Your task to perform on an android device: What is the recent news? Image 0: 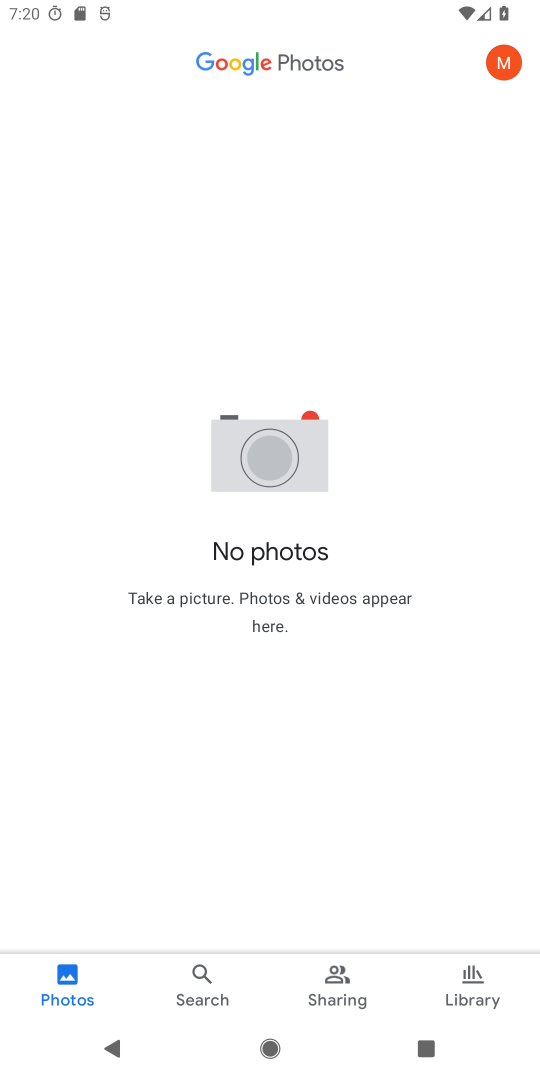
Step 0: press back button
Your task to perform on an android device: What is the recent news? Image 1: 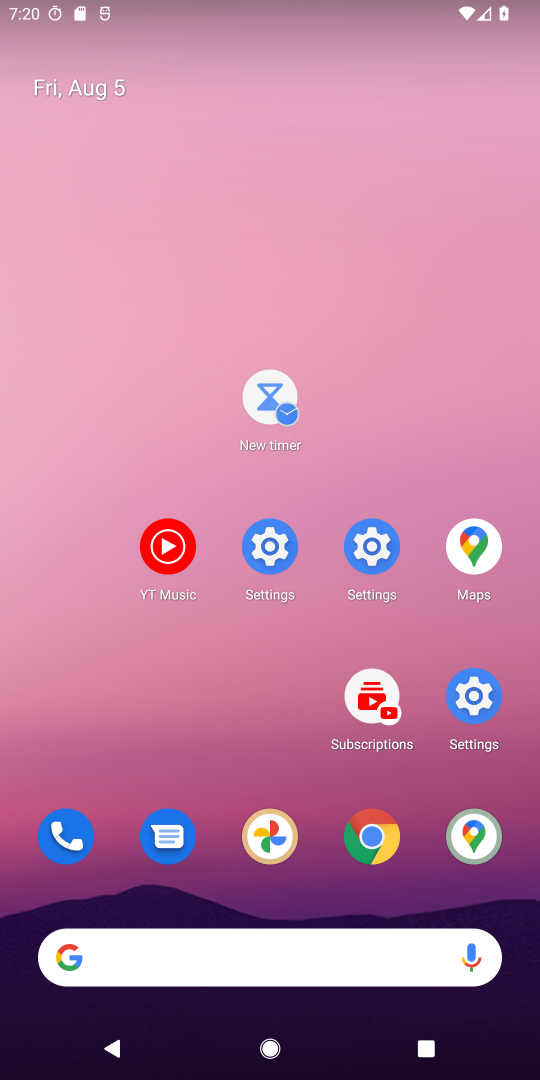
Step 1: drag from (348, 860) to (297, 224)
Your task to perform on an android device: What is the recent news? Image 2: 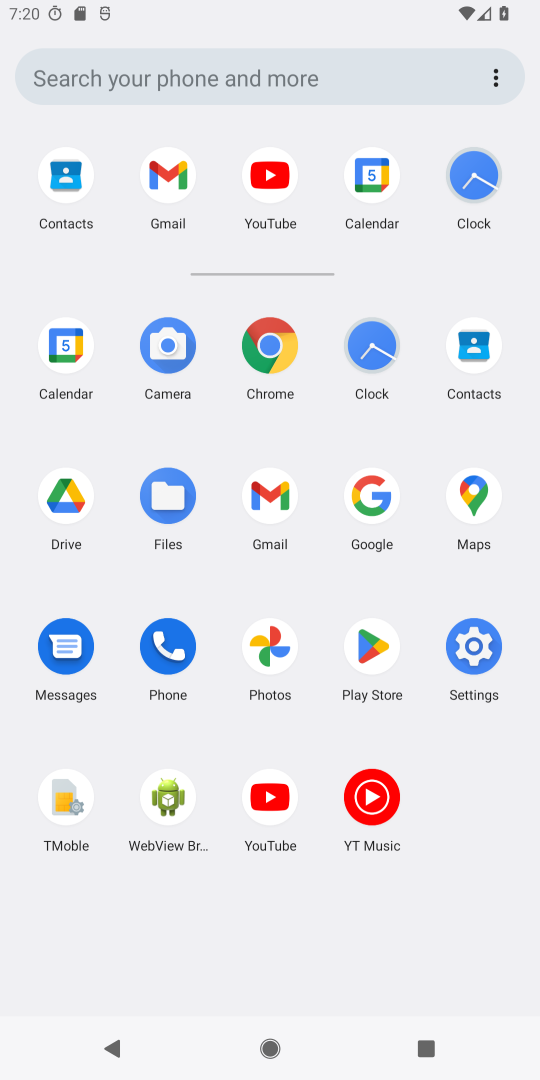
Step 2: drag from (204, 47) to (151, 184)
Your task to perform on an android device: What is the recent news? Image 3: 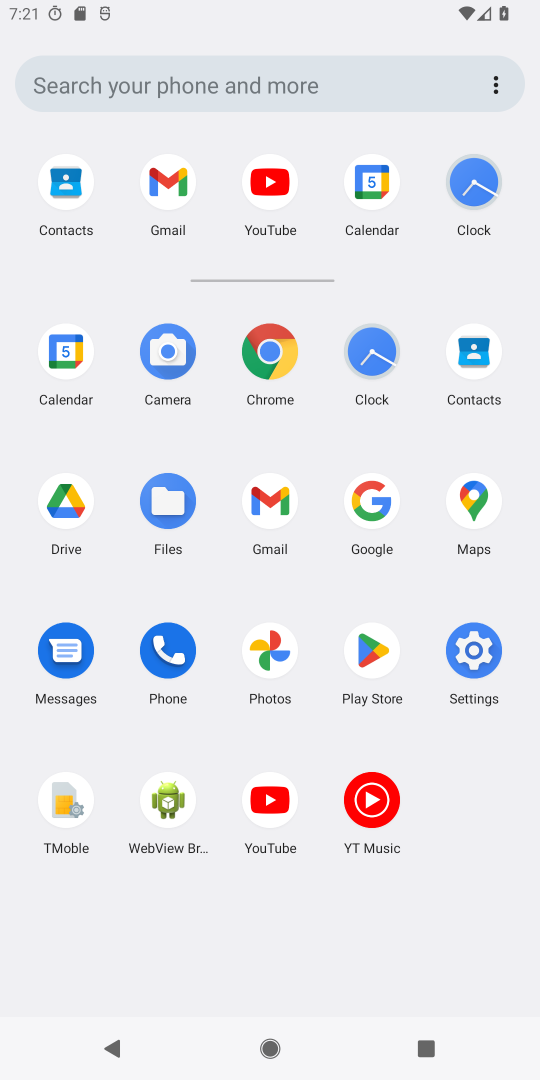
Step 3: click (267, 354)
Your task to perform on an android device: What is the recent news? Image 4: 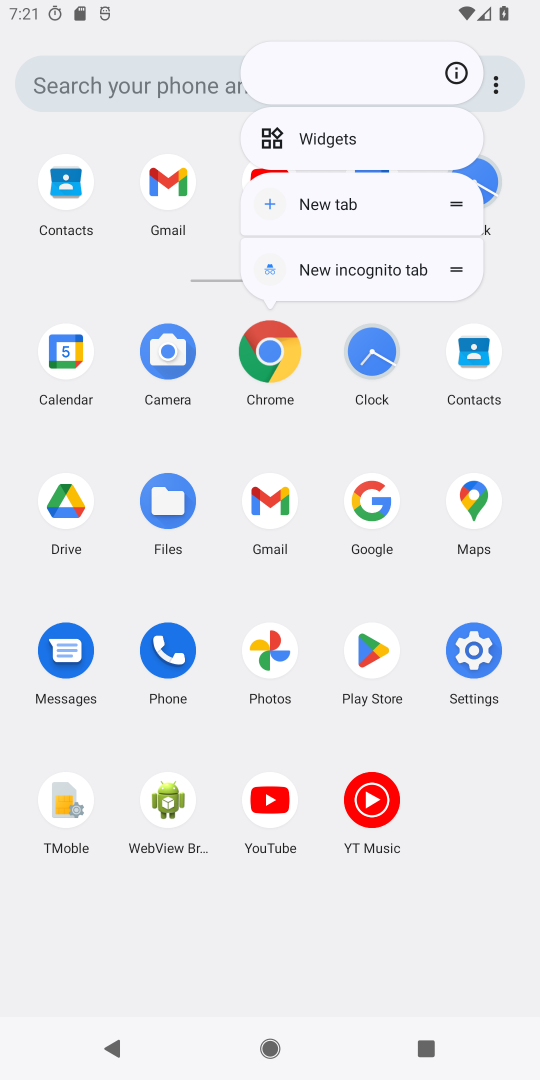
Step 4: click (268, 355)
Your task to perform on an android device: What is the recent news? Image 5: 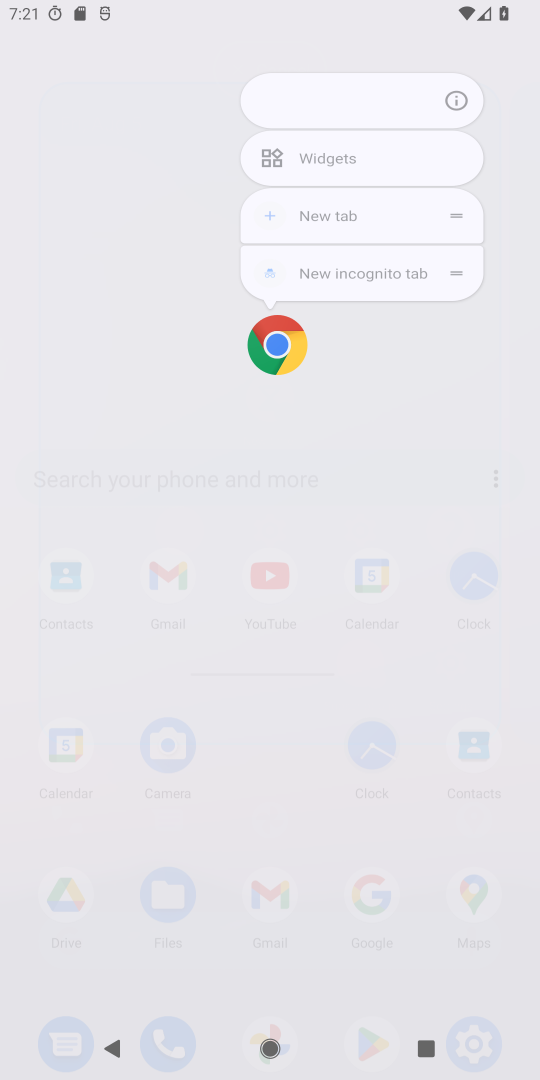
Step 5: click (272, 350)
Your task to perform on an android device: What is the recent news? Image 6: 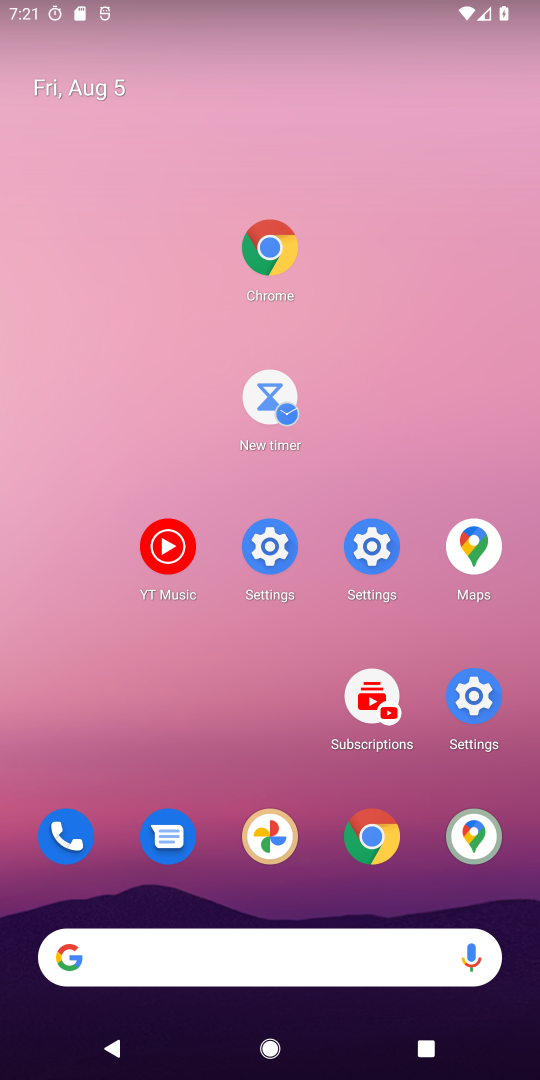
Step 6: drag from (245, 933) to (192, 112)
Your task to perform on an android device: What is the recent news? Image 7: 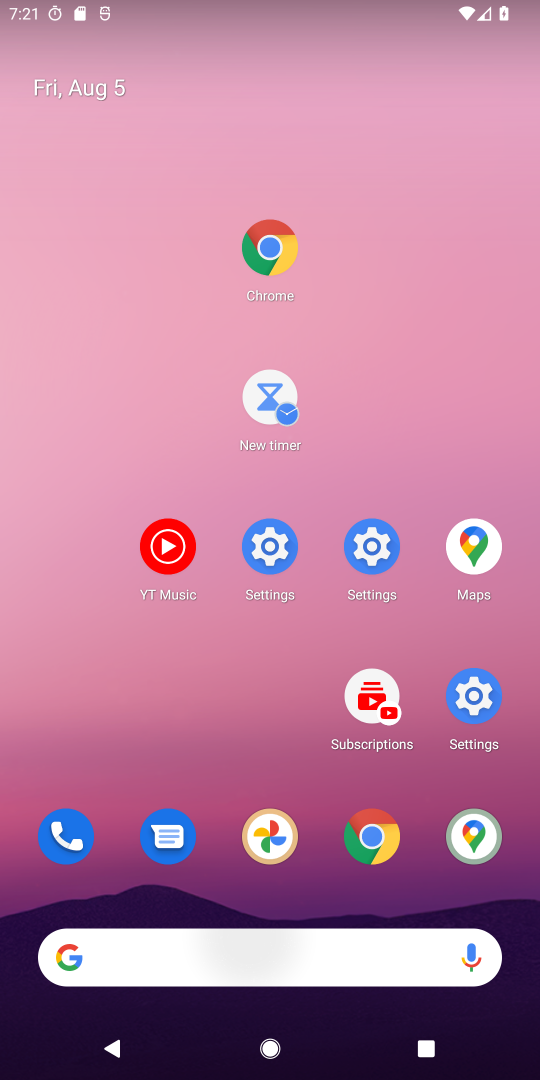
Step 7: click (164, 363)
Your task to perform on an android device: What is the recent news? Image 8: 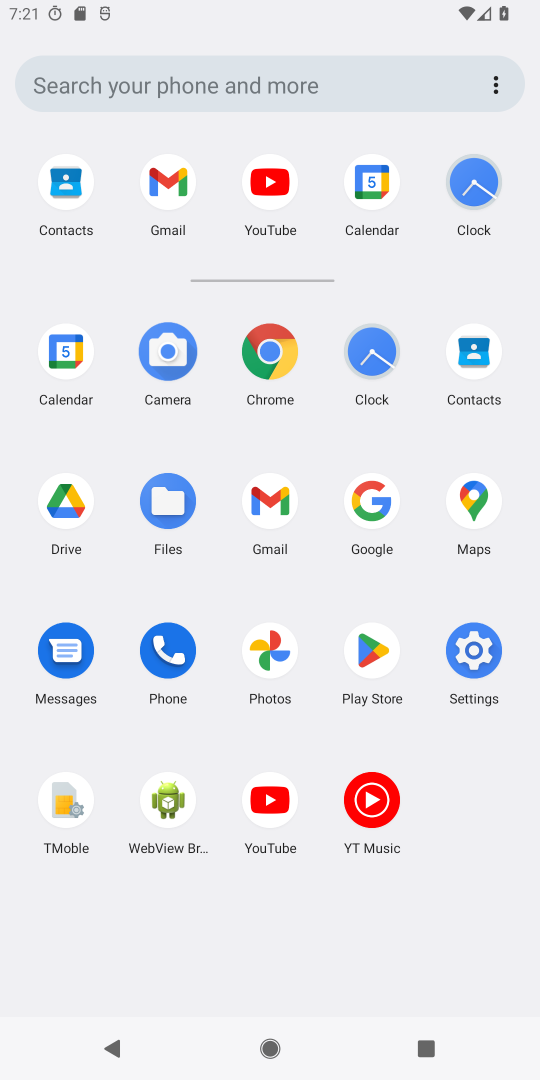
Step 8: drag from (219, 681) to (163, 31)
Your task to perform on an android device: What is the recent news? Image 9: 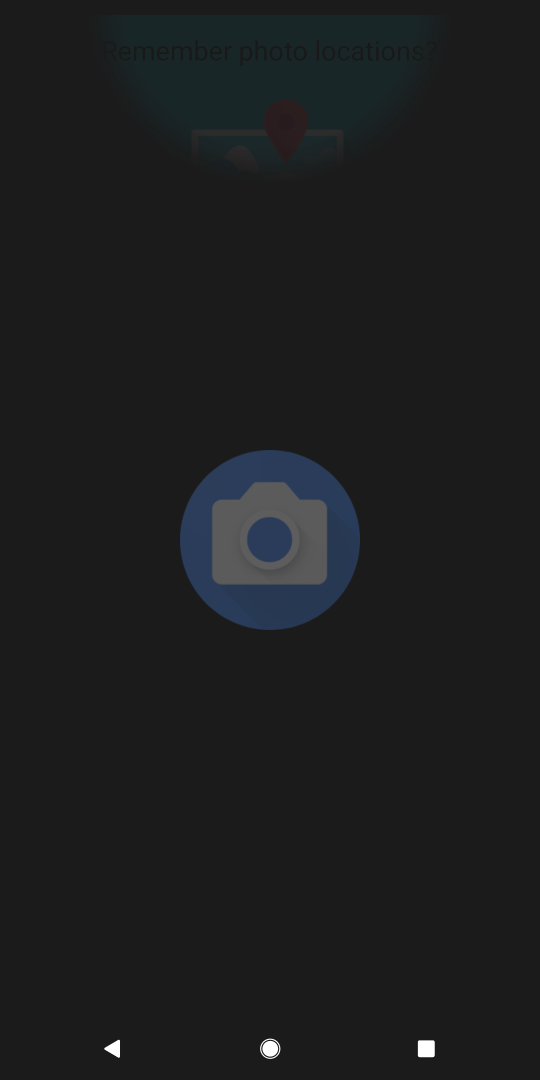
Step 9: press back button
Your task to perform on an android device: What is the recent news? Image 10: 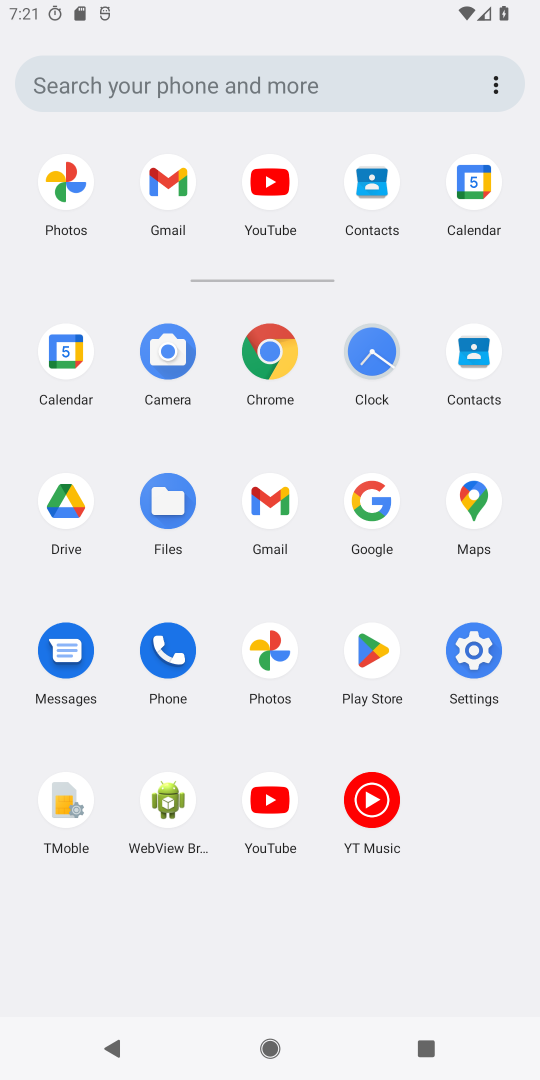
Step 10: click (274, 359)
Your task to perform on an android device: What is the recent news? Image 11: 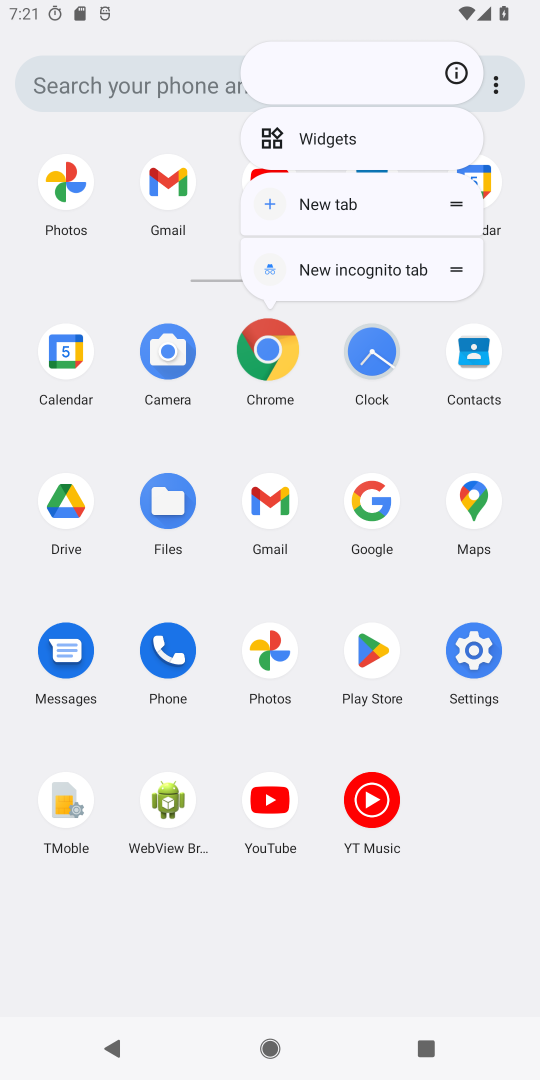
Step 11: click (272, 357)
Your task to perform on an android device: What is the recent news? Image 12: 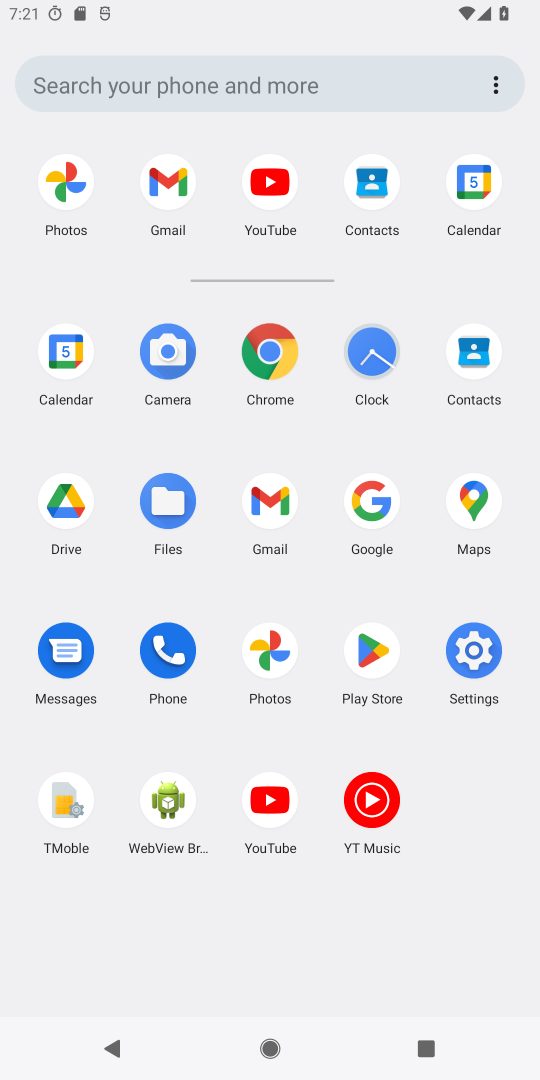
Step 12: click (268, 357)
Your task to perform on an android device: What is the recent news? Image 13: 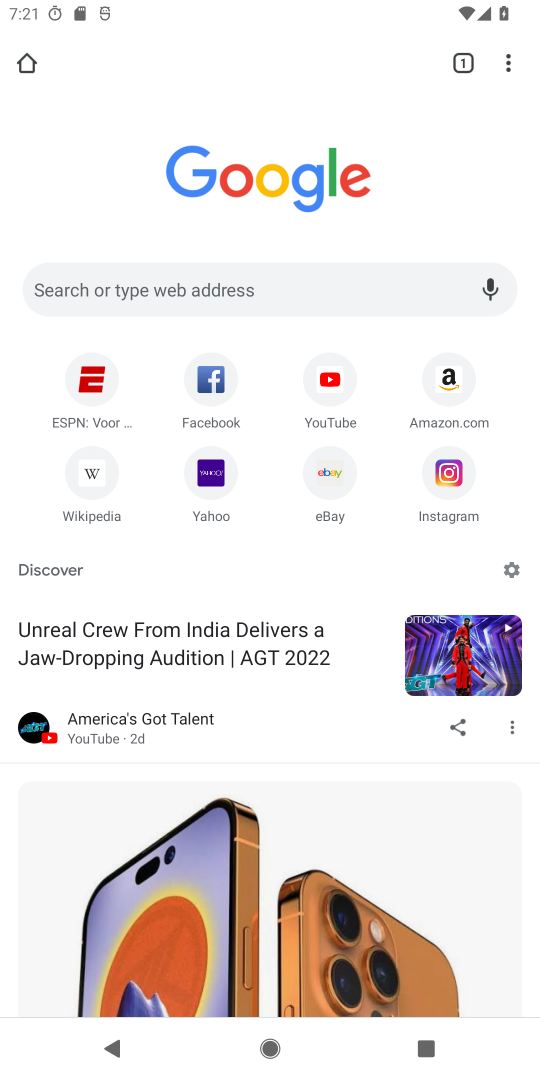
Step 13: task complete